Your task to perform on an android device: turn vacation reply on in the gmail app Image 0: 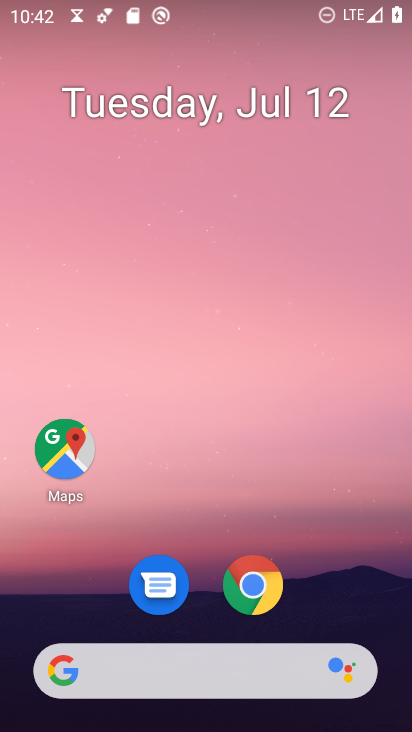
Step 0: drag from (202, 649) to (310, 120)
Your task to perform on an android device: turn vacation reply on in the gmail app Image 1: 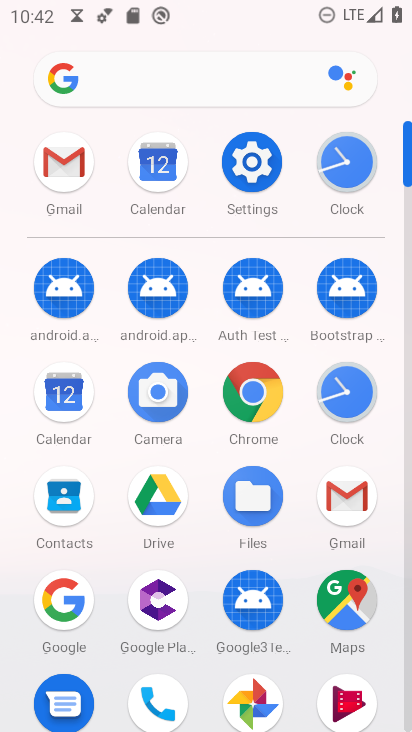
Step 1: click (69, 171)
Your task to perform on an android device: turn vacation reply on in the gmail app Image 2: 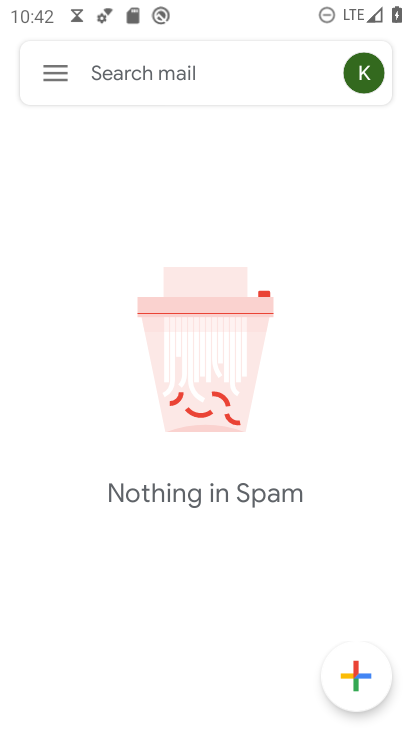
Step 2: click (54, 69)
Your task to perform on an android device: turn vacation reply on in the gmail app Image 3: 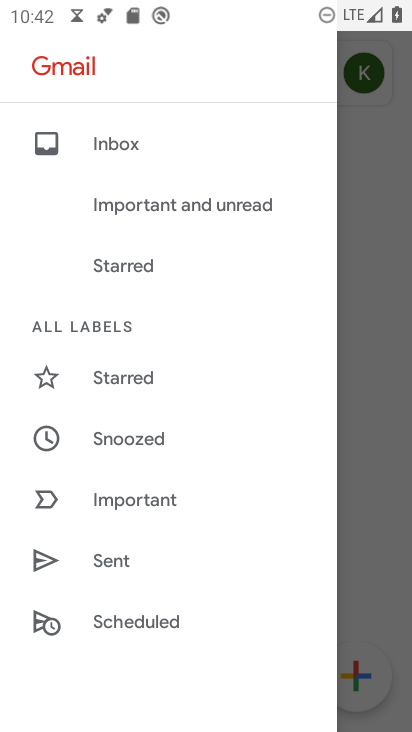
Step 3: drag from (184, 605) to (255, 96)
Your task to perform on an android device: turn vacation reply on in the gmail app Image 4: 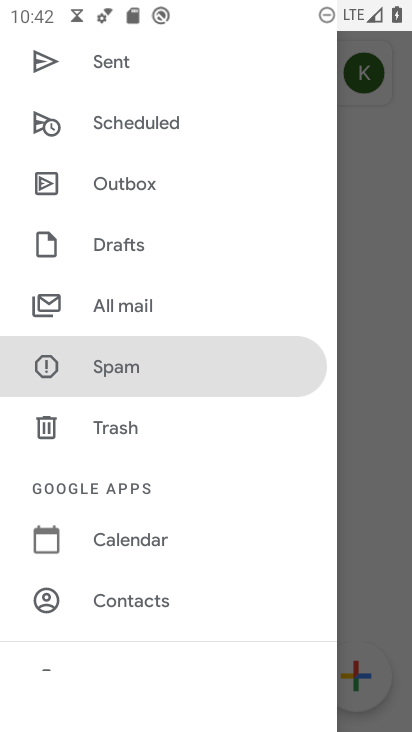
Step 4: drag from (173, 595) to (241, 59)
Your task to perform on an android device: turn vacation reply on in the gmail app Image 5: 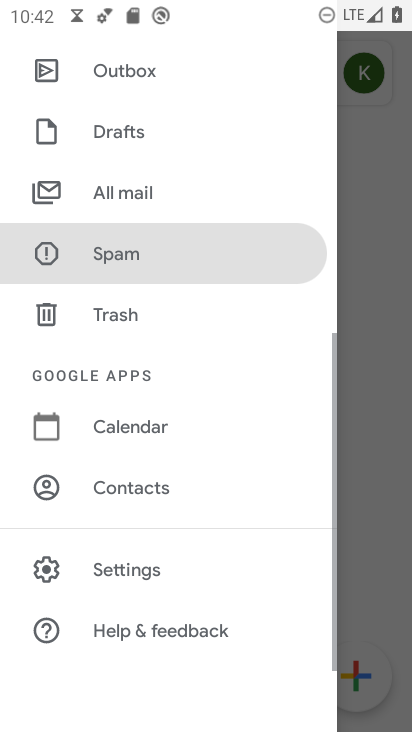
Step 5: click (123, 568)
Your task to perform on an android device: turn vacation reply on in the gmail app Image 6: 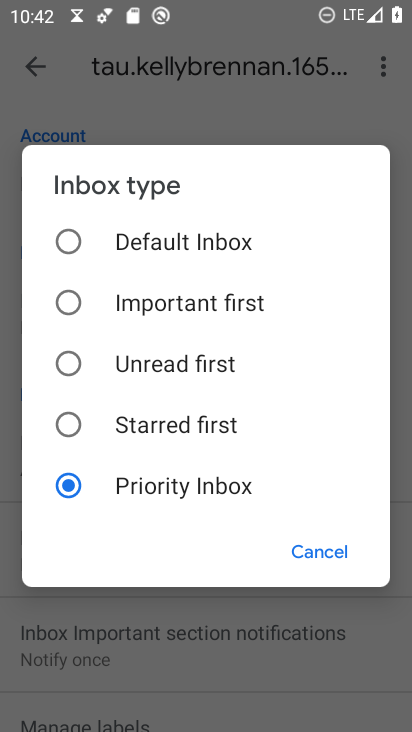
Step 6: click (295, 543)
Your task to perform on an android device: turn vacation reply on in the gmail app Image 7: 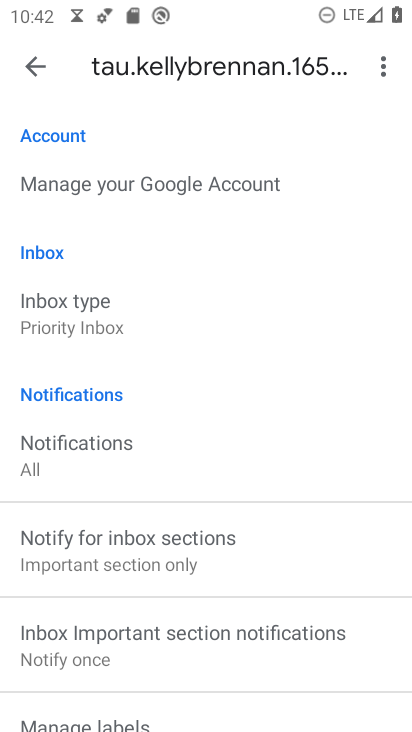
Step 7: drag from (192, 638) to (284, 28)
Your task to perform on an android device: turn vacation reply on in the gmail app Image 8: 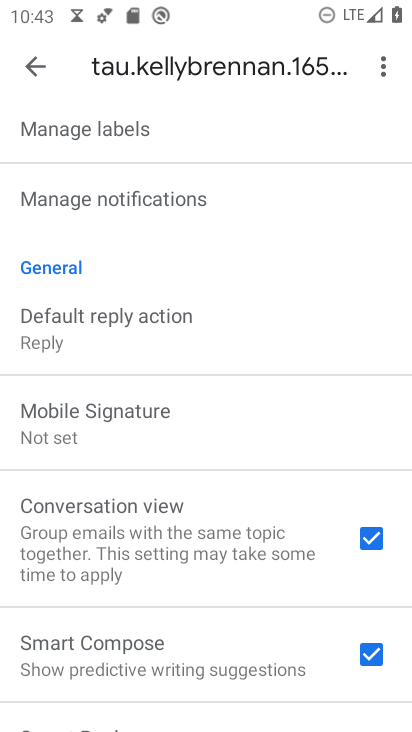
Step 8: drag from (204, 590) to (301, 205)
Your task to perform on an android device: turn vacation reply on in the gmail app Image 9: 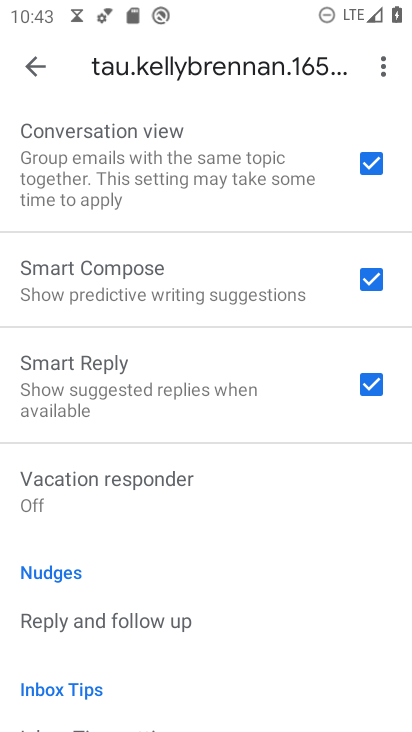
Step 9: click (146, 505)
Your task to perform on an android device: turn vacation reply on in the gmail app Image 10: 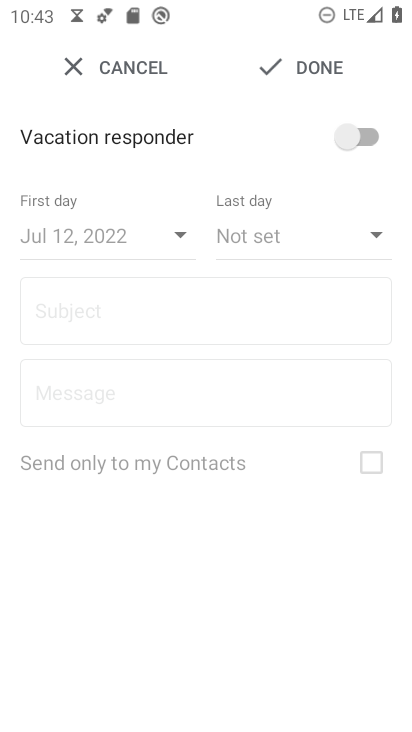
Step 10: click (366, 134)
Your task to perform on an android device: turn vacation reply on in the gmail app Image 11: 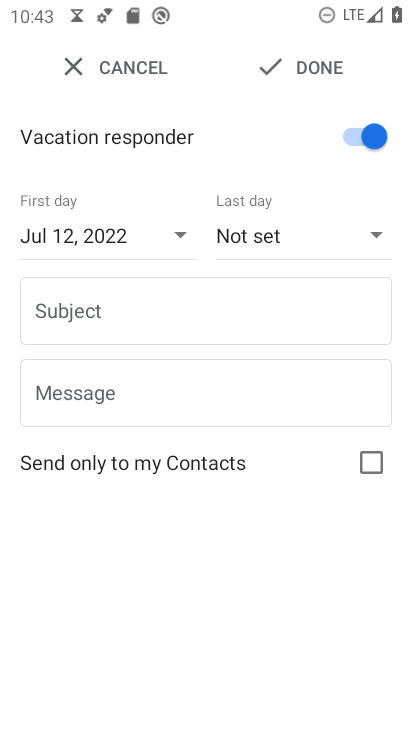
Step 11: task complete